Your task to perform on an android device: Search for pizza restaurants on Maps Image 0: 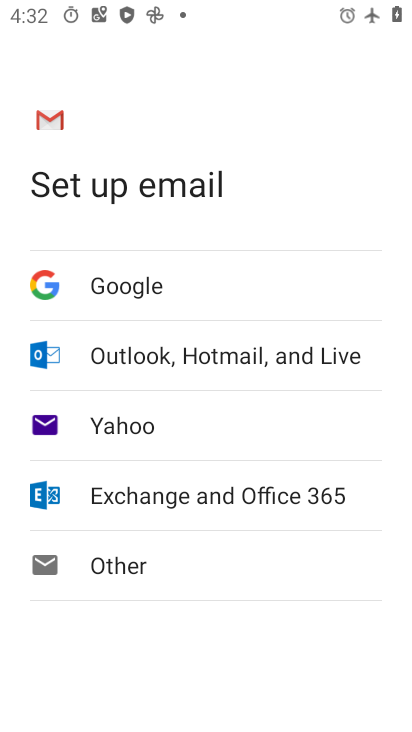
Step 0: press home button
Your task to perform on an android device: Search for pizza restaurants on Maps Image 1: 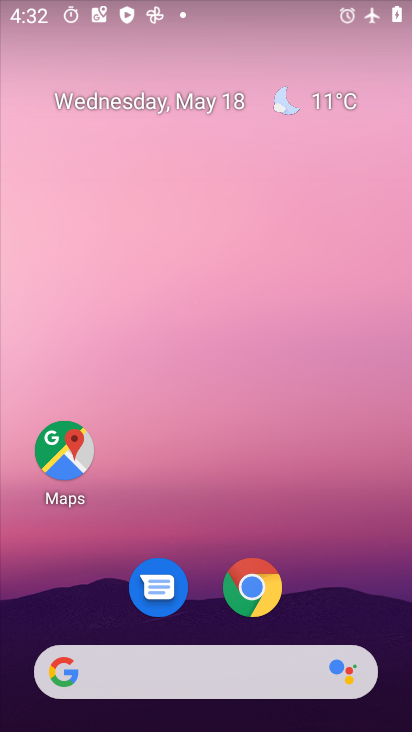
Step 1: drag from (223, 635) to (254, 238)
Your task to perform on an android device: Search for pizza restaurants on Maps Image 2: 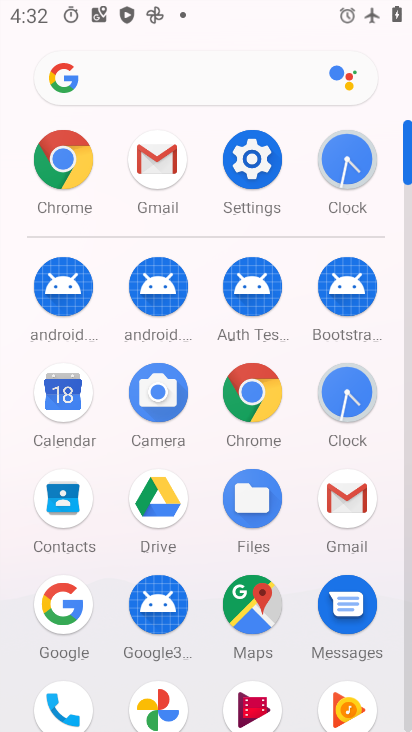
Step 2: click (242, 623)
Your task to perform on an android device: Search for pizza restaurants on Maps Image 3: 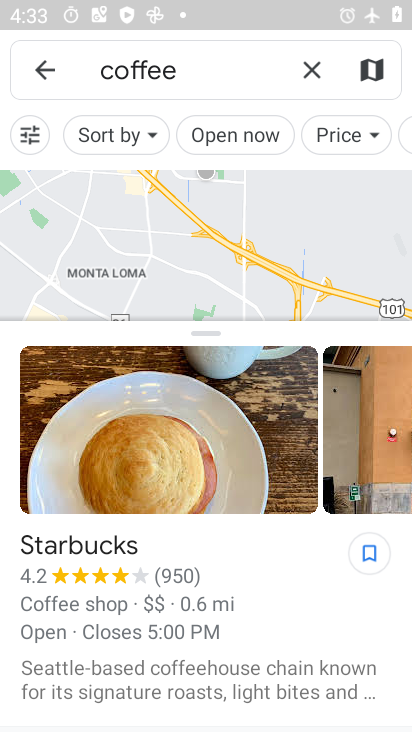
Step 3: click (311, 62)
Your task to perform on an android device: Search for pizza restaurants on Maps Image 4: 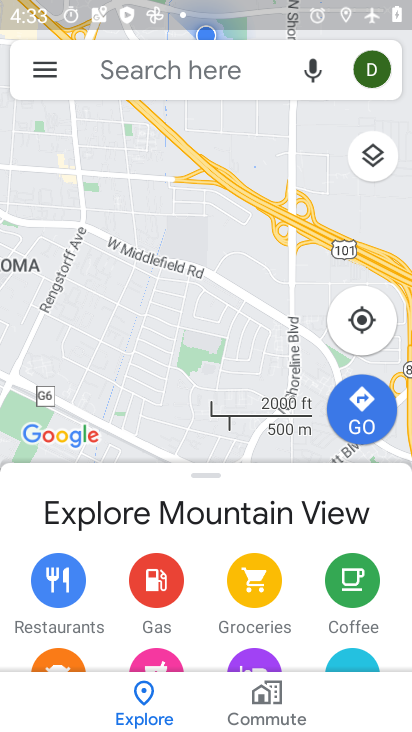
Step 4: click (269, 83)
Your task to perform on an android device: Search for pizza restaurants on Maps Image 5: 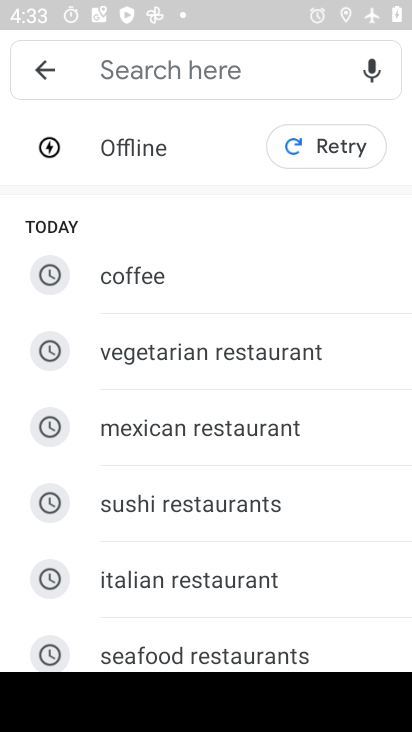
Step 5: drag from (309, 504) to (309, 164)
Your task to perform on an android device: Search for pizza restaurants on Maps Image 6: 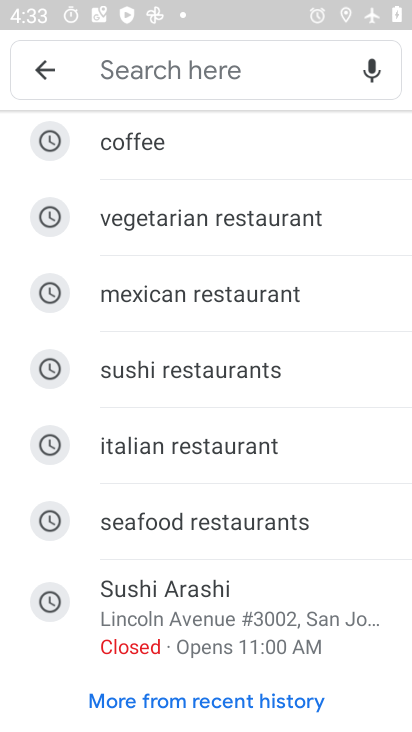
Step 6: click (269, 68)
Your task to perform on an android device: Search for pizza restaurants on Maps Image 7: 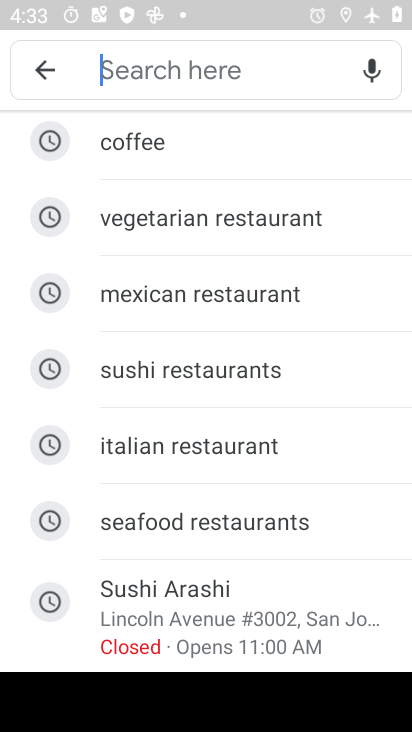
Step 7: type "pizza restaurant"
Your task to perform on an android device: Search for pizza restaurants on Maps Image 8: 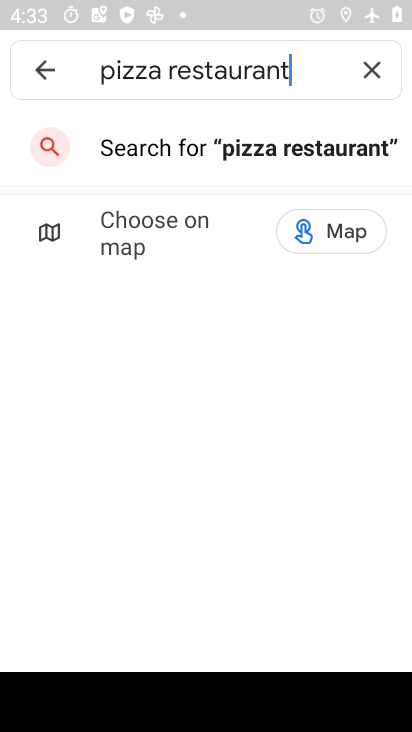
Step 8: task complete